Your task to perform on an android device: What's the weather going to be tomorrow? Image 0: 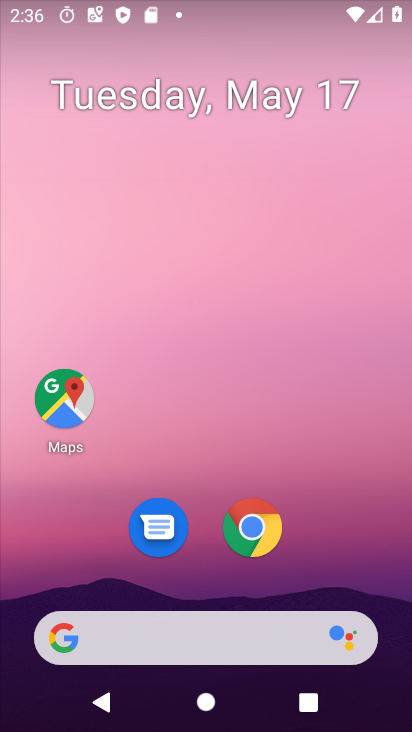
Step 0: press home button
Your task to perform on an android device: What's the weather going to be tomorrow? Image 1: 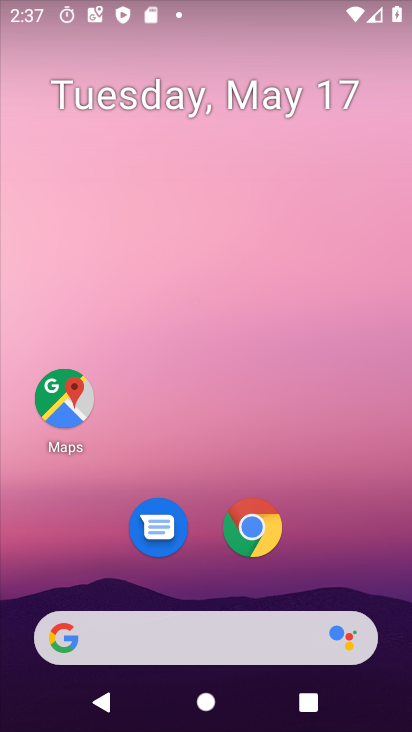
Step 1: drag from (268, 599) to (254, 138)
Your task to perform on an android device: What's the weather going to be tomorrow? Image 2: 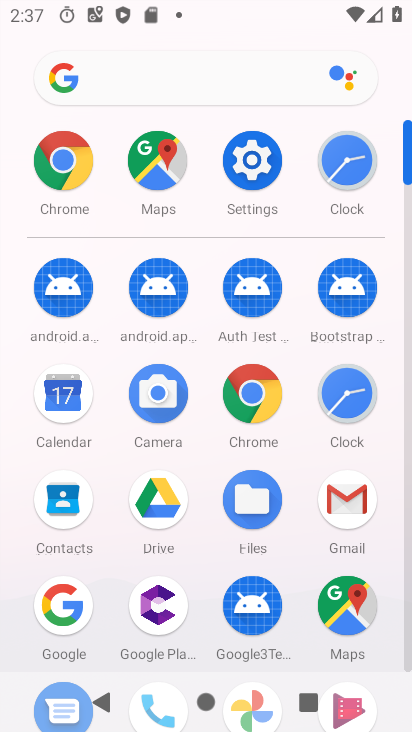
Step 2: click (172, 99)
Your task to perform on an android device: What's the weather going to be tomorrow? Image 3: 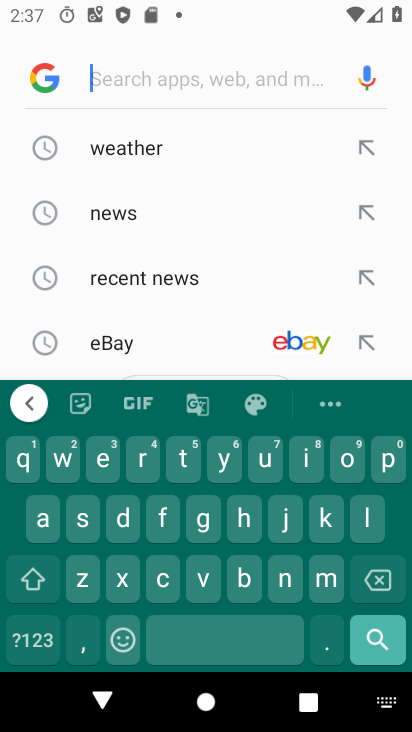
Step 3: click (163, 150)
Your task to perform on an android device: What's the weather going to be tomorrow? Image 4: 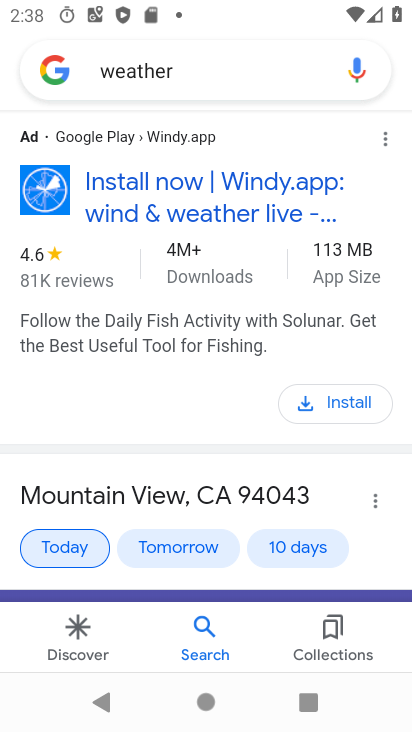
Step 4: drag from (162, 437) to (173, 184)
Your task to perform on an android device: What's the weather going to be tomorrow? Image 5: 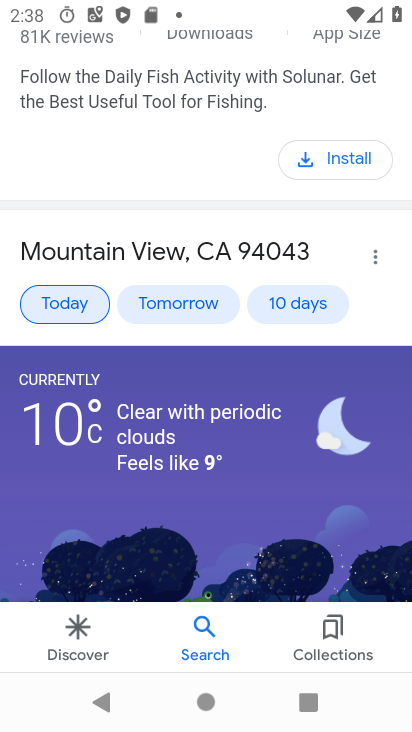
Step 5: click (157, 309)
Your task to perform on an android device: What's the weather going to be tomorrow? Image 6: 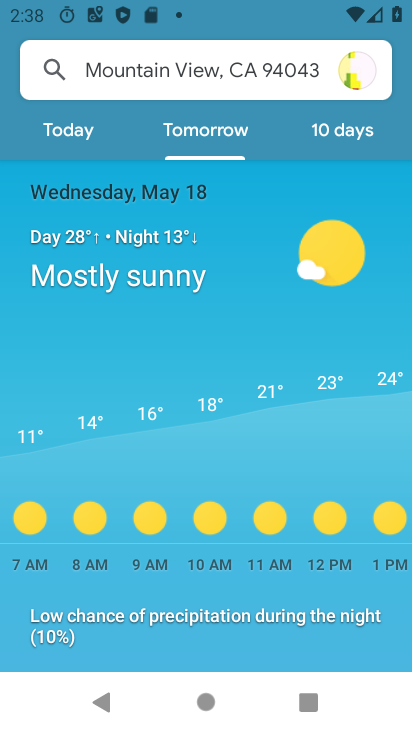
Step 6: task complete